Your task to perform on an android device: toggle improve location accuracy Image 0: 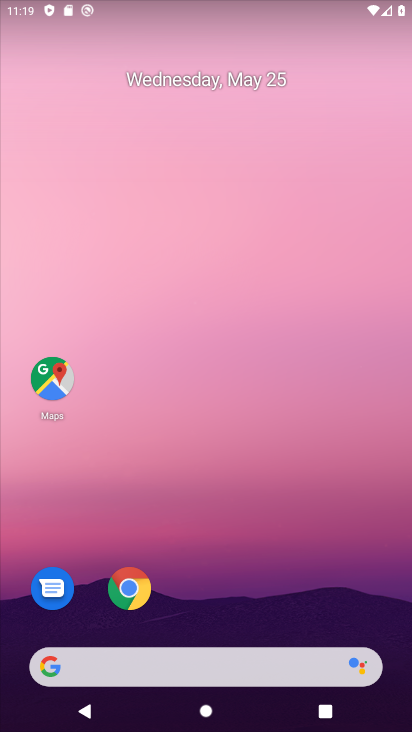
Step 0: drag from (281, 547) to (175, 41)
Your task to perform on an android device: toggle improve location accuracy Image 1: 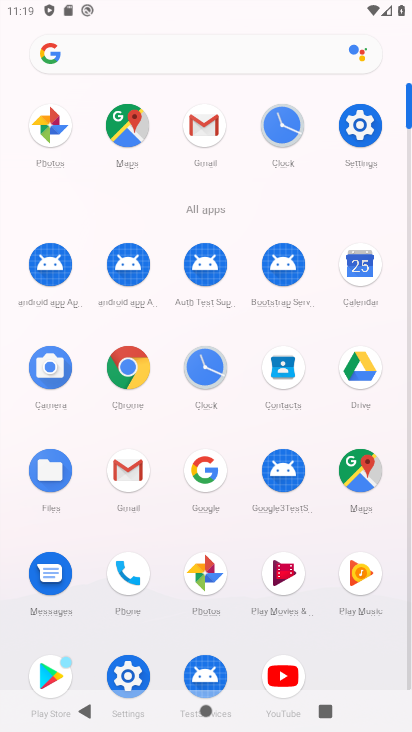
Step 1: drag from (9, 619) to (22, 318)
Your task to perform on an android device: toggle improve location accuracy Image 2: 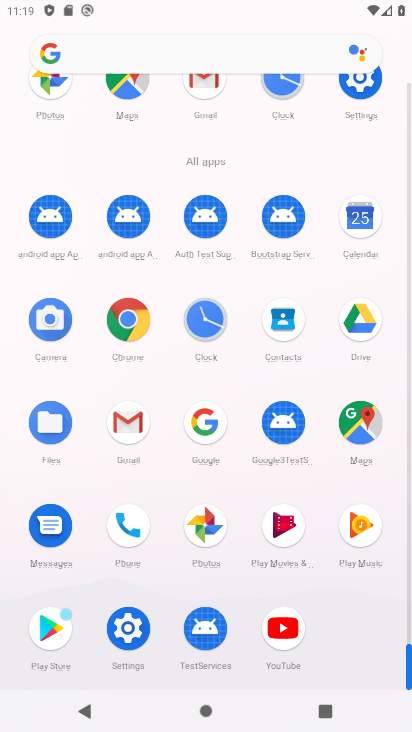
Step 2: click (129, 625)
Your task to perform on an android device: toggle improve location accuracy Image 3: 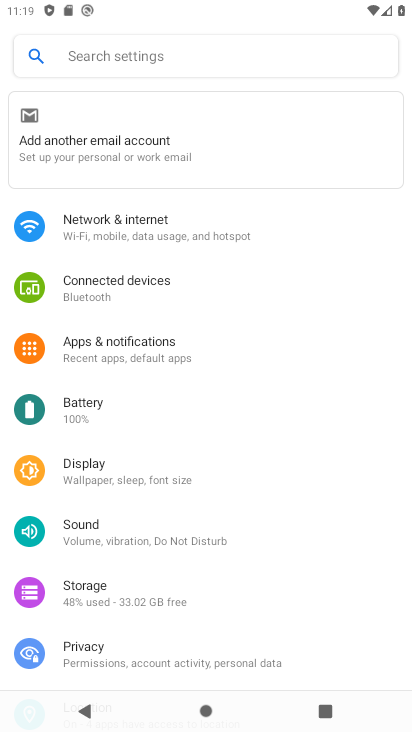
Step 3: drag from (252, 588) to (238, 241)
Your task to perform on an android device: toggle improve location accuracy Image 4: 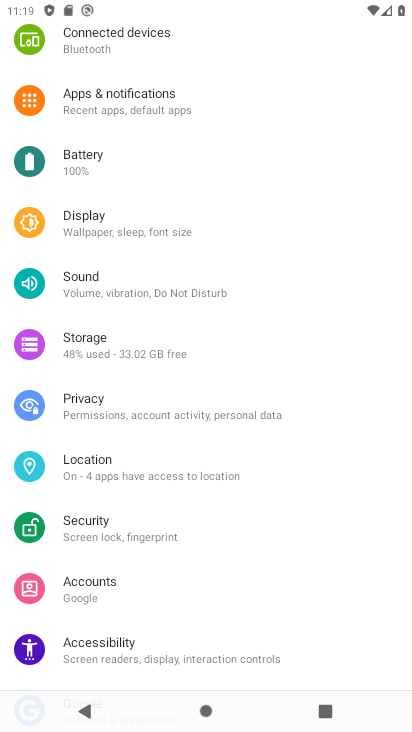
Step 4: click (155, 463)
Your task to perform on an android device: toggle improve location accuracy Image 5: 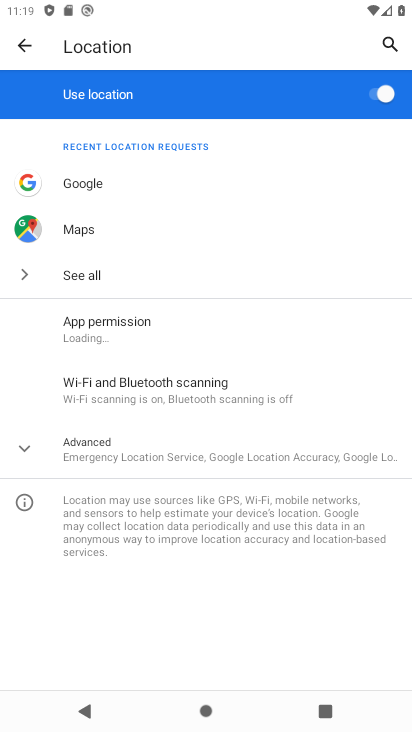
Step 5: click (44, 451)
Your task to perform on an android device: toggle improve location accuracy Image 6: 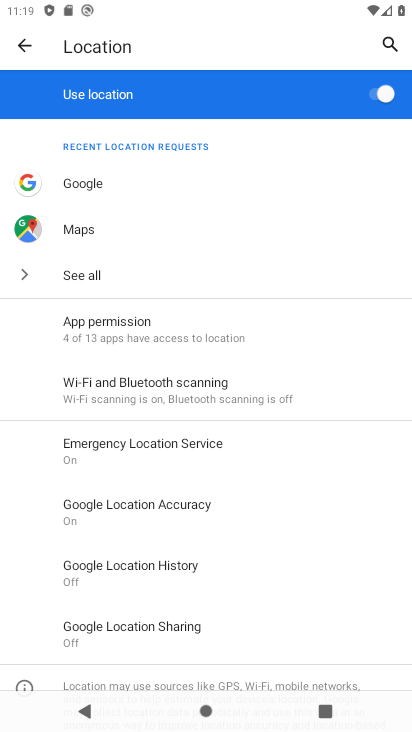
Step 6: click (152, 512)
Your task to perform on an android device: toggle improve location accuracy Image 7: 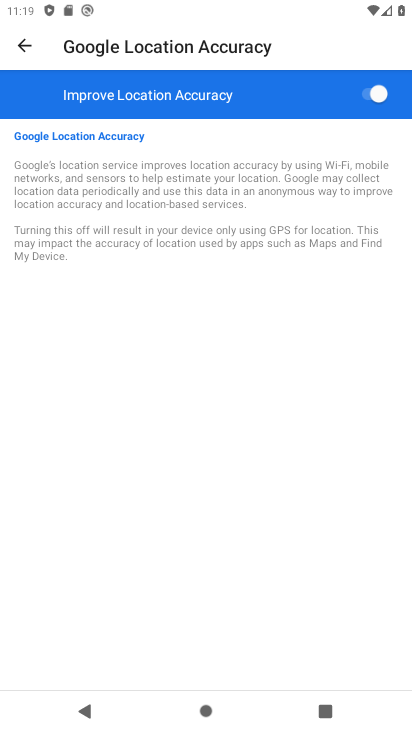
Step 7: click (368, 87)
Your task to perform on an android device: toggle improve location accuracy Image 8: 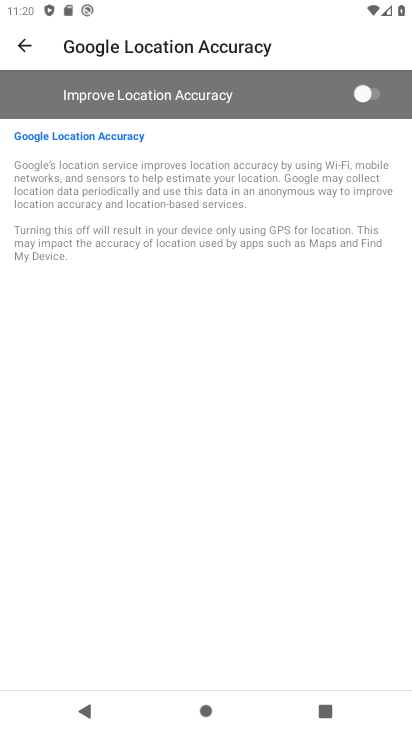
Step 8: task complete